Your task to perform on an android device: Go to CNN.com Image 0: 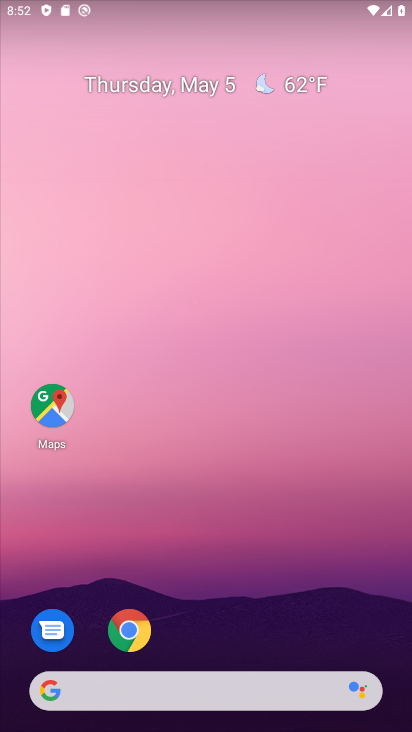
Step 0: press home button
Your task to perform on an android device: Go to CNN.com Image 1: 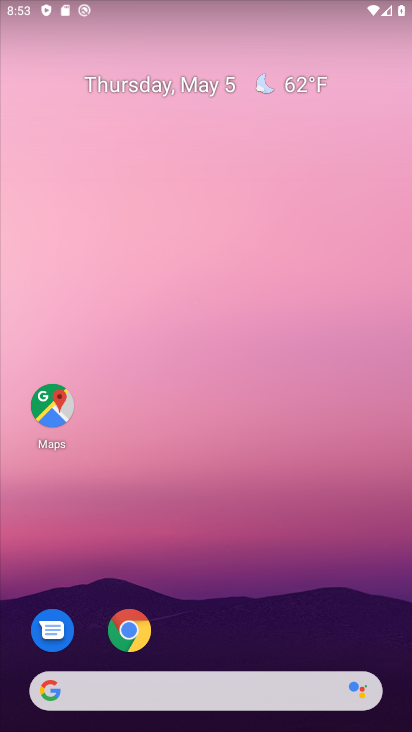
Step 1: click (126, 626)
Your task to perform on an android device: Go to CNN.com Image 2: 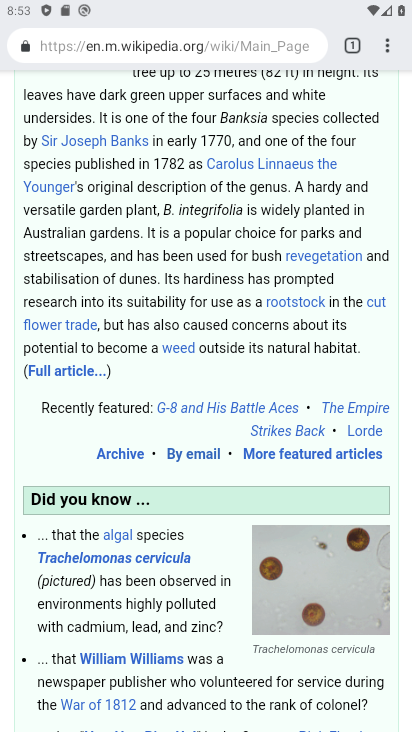
Step 2: press back button
Your task to perform on an android device: Go to CNN.com Image 3: 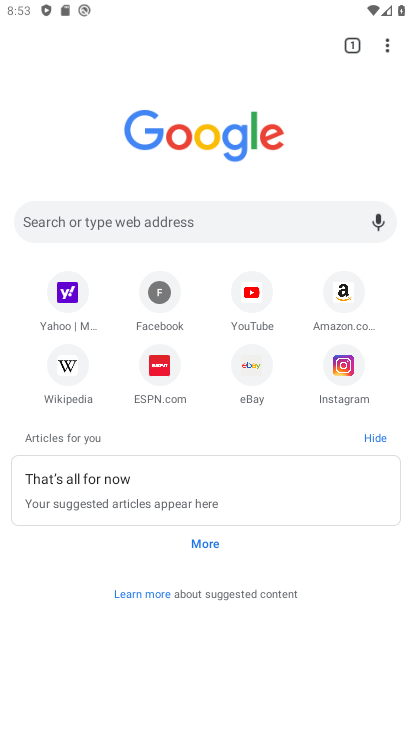
Step 3: click (121, 209)
Your task to perform on an android device: Go to CNN.com Image 4: 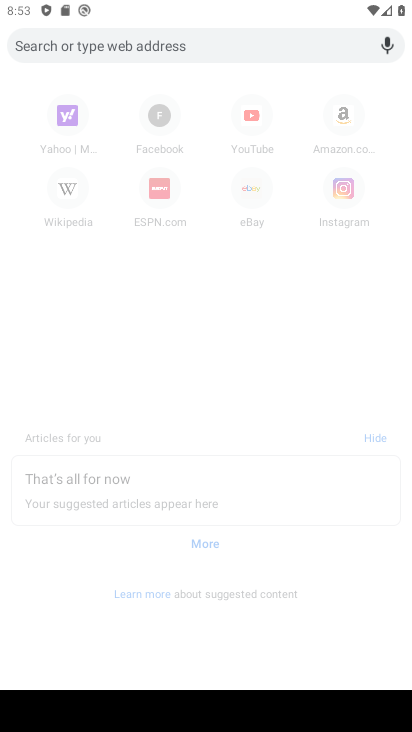
Step 4: type "cnn.com"
Your task to perform on an android device: Go to CNN.com Image 5: 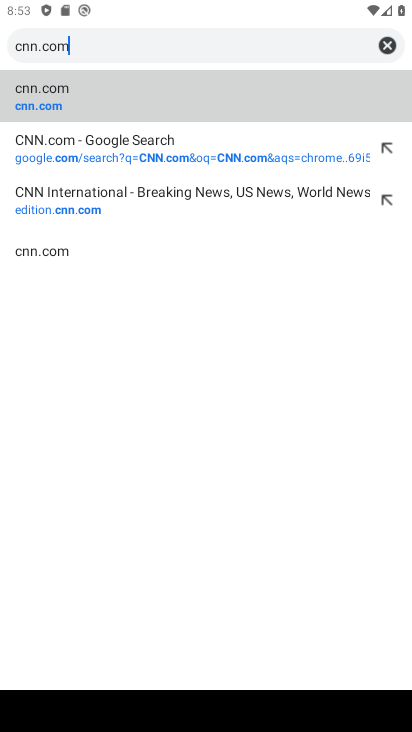
Step 5: click (99, 94)
Your task to perform on an android device: Go to CNN.com Image 6: 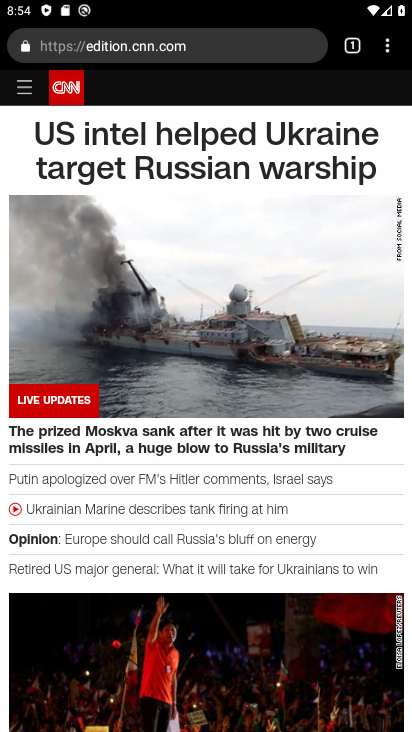
Step 6: task complete